Your task to perform on an android device: see sites visited before in the chrome app Image 0: 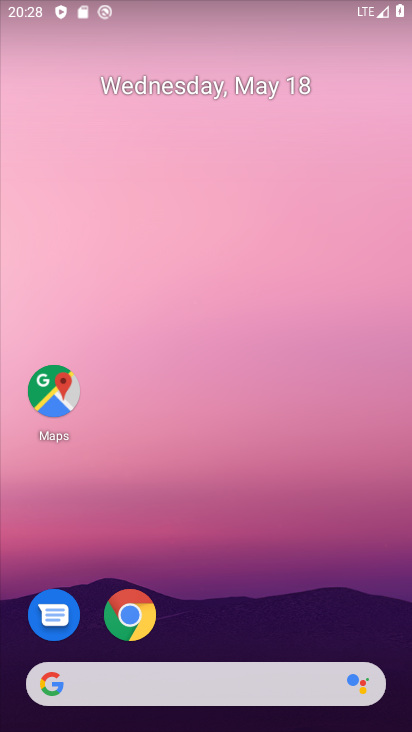
Step 0: click (137, 622)
Your task to perform on an android device: see sites visited before in the chrome app Image 1: 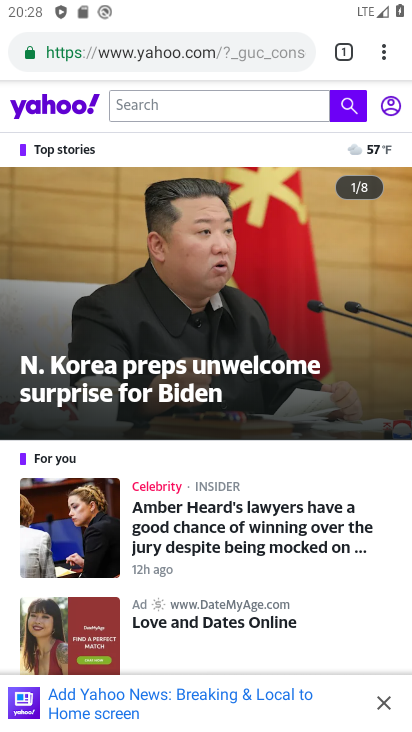
Step 1: task complete